Your task to perform on an android device: turn notification dots on Image 0: 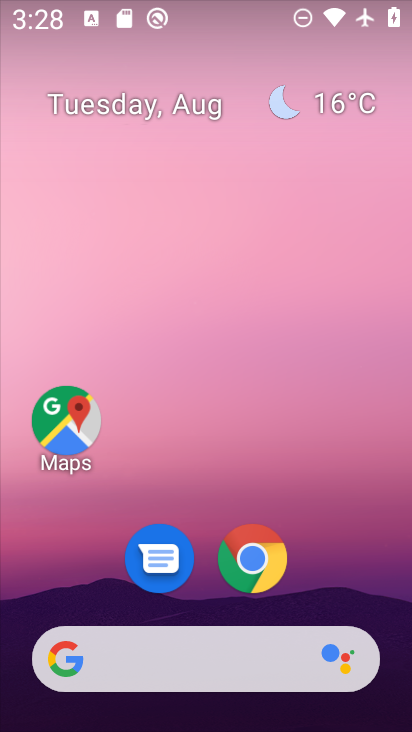
Step 0: drag from (199, 484) to (199, 125)
Your task to perform on an android device: turn notification dots on Image 1: 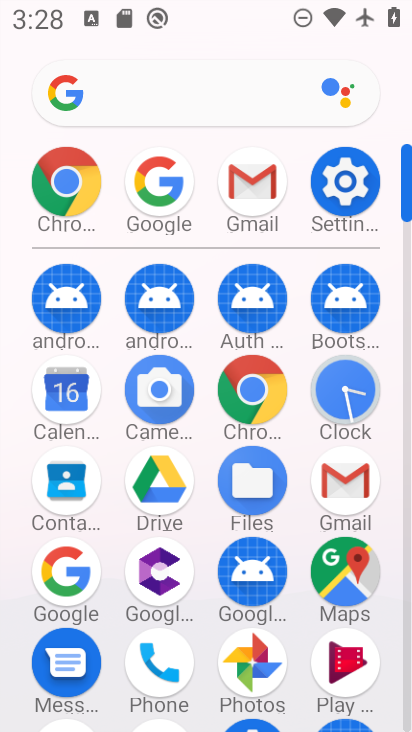
Step 1: click (330, 209)
Your task to perform on an android device: turn notification dots on Image 2: 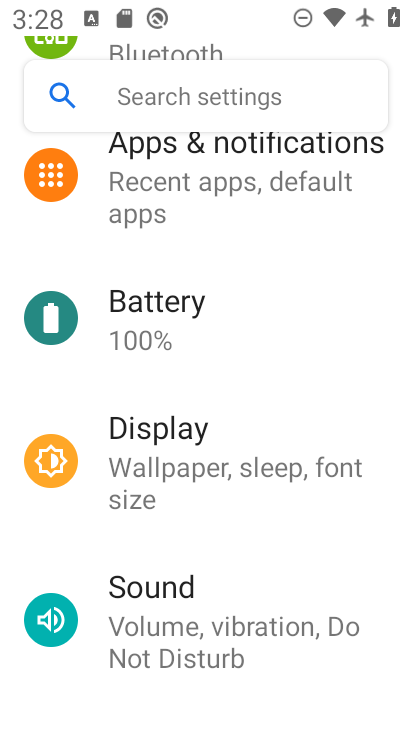
Step 2: click (218, 195)
Your task to perform on an android device: turn notification dots on Image 3: 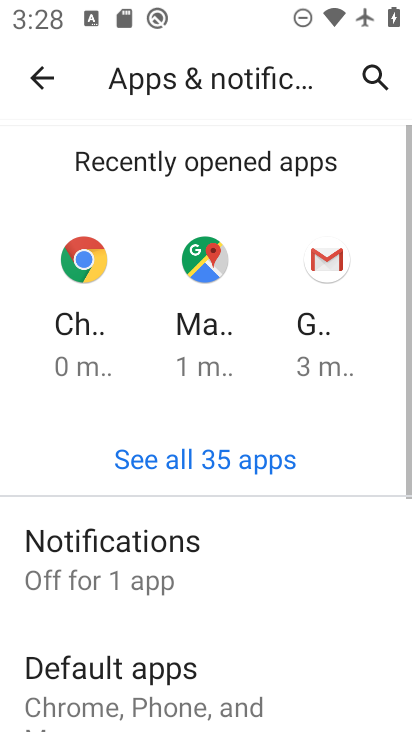
Step 3: click (130, 526)
Your task to perform on an android device: turn notification dots on Image 4: 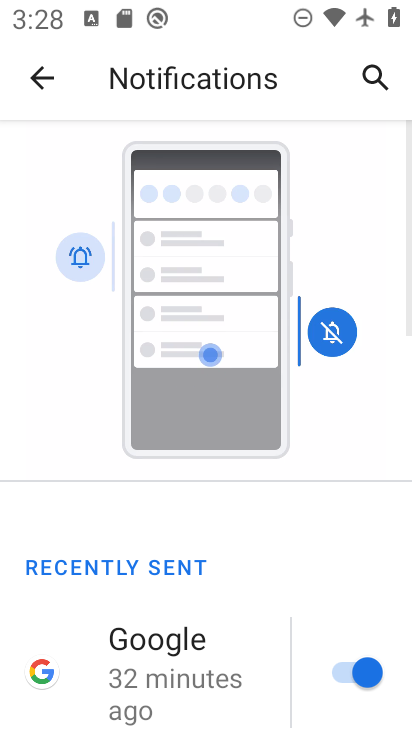
Step 4: drag from (158, 658) to (162, 171)
Your task to perform on an android device: turn notification dots on Image 5: 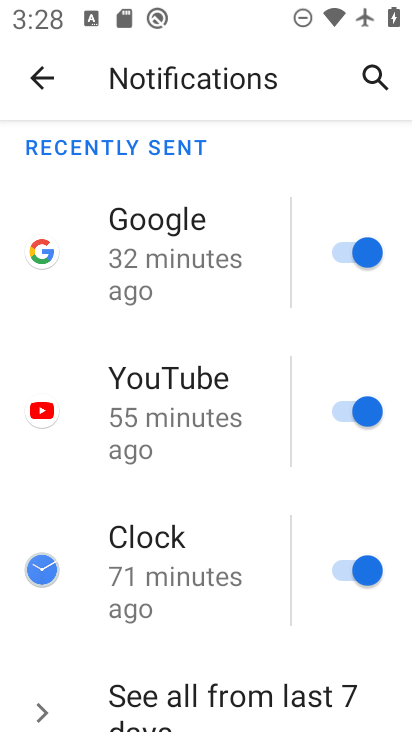
Step 5: drag from (208, 579) to (214, 229)
Your task to perform on an android device: turn notification dots on Image 6: 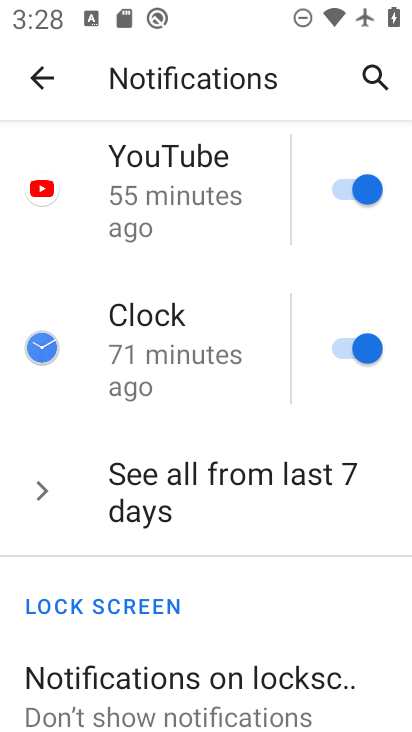
Step 6: drag from (218, 661) to (225, 292)
Your task to perform on an android device: turn notification dots on Image 7: 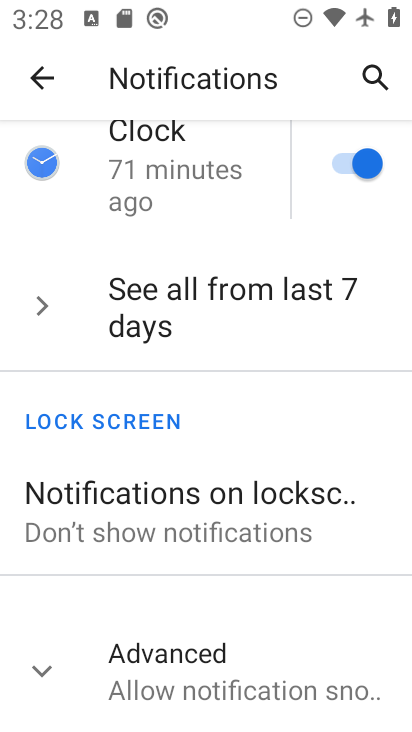
Step 7: click (190, 687)
Your task to perform on an android device: turn notification dots on Image 8: 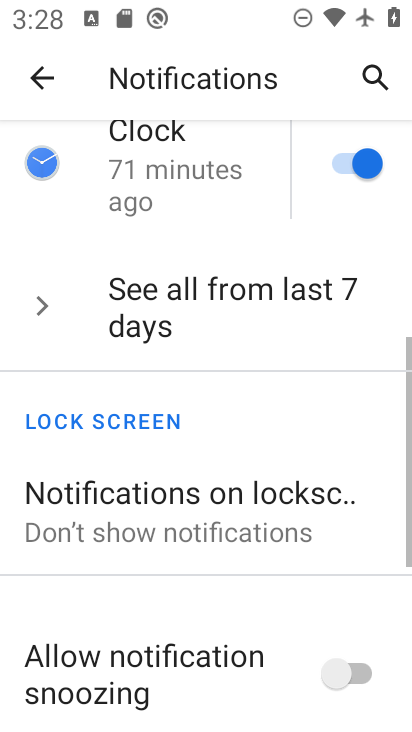
Step 8: task complete